Your task to perform on an android device: What's the weather today? Image 0: 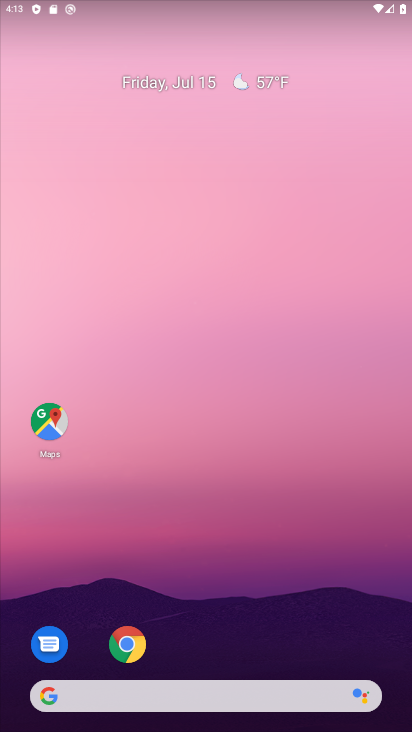
Step 0: drag from (223, 670) to (249, 397)
Your task to perform on an android device: What's the weather today? Image 1: 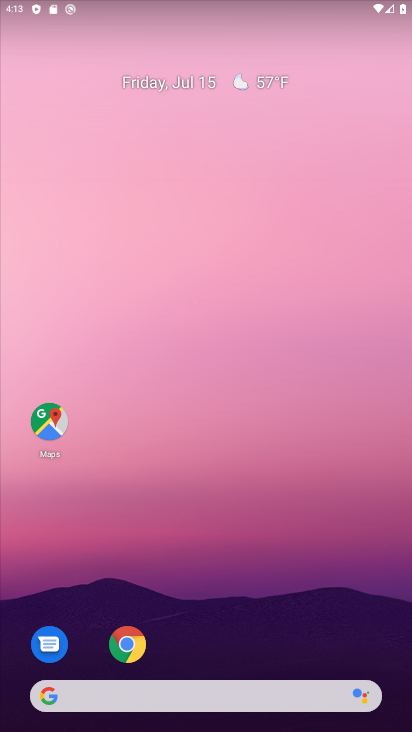
Step 1: drag from (243, 682) to (248, 343)
Your task to perform on an android device: What's the weather today? Image 2: 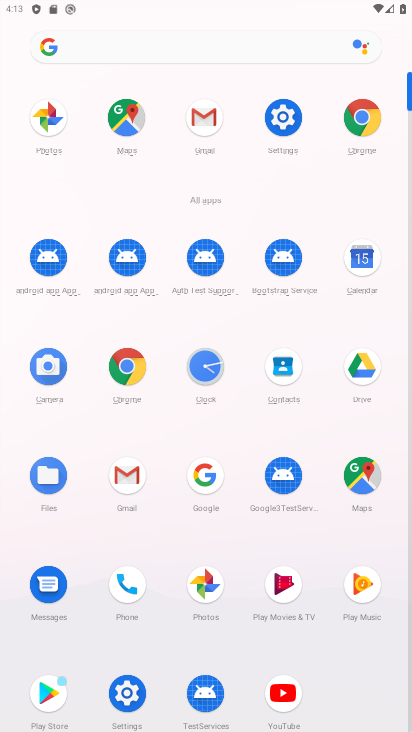
Step 2: click (209, 481)
Your task to perform on an android device: What's the weather today? Image 3: 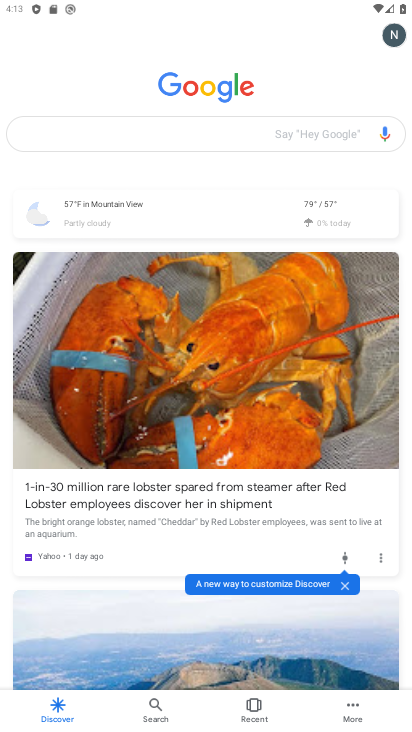
Step 3: drag from (152, 130) to (76, 130)
Your task to perform on an android device: What's the weather today? Image 4: 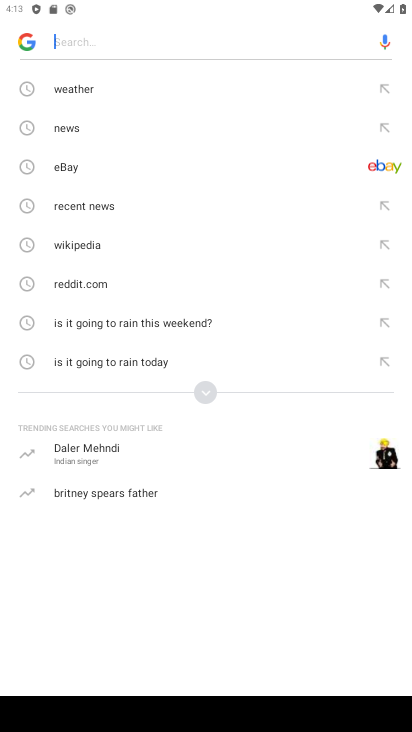
Step 4: click (76, 92)
Your task to perform on an android device: What's the weather today? Image 5: 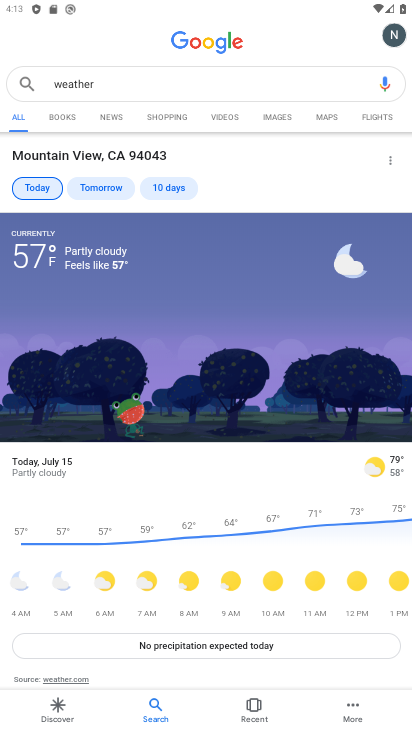
Step 5: task complete